Your task to perform on an android device: Clear all items from cart on amazon.com. Image 0: 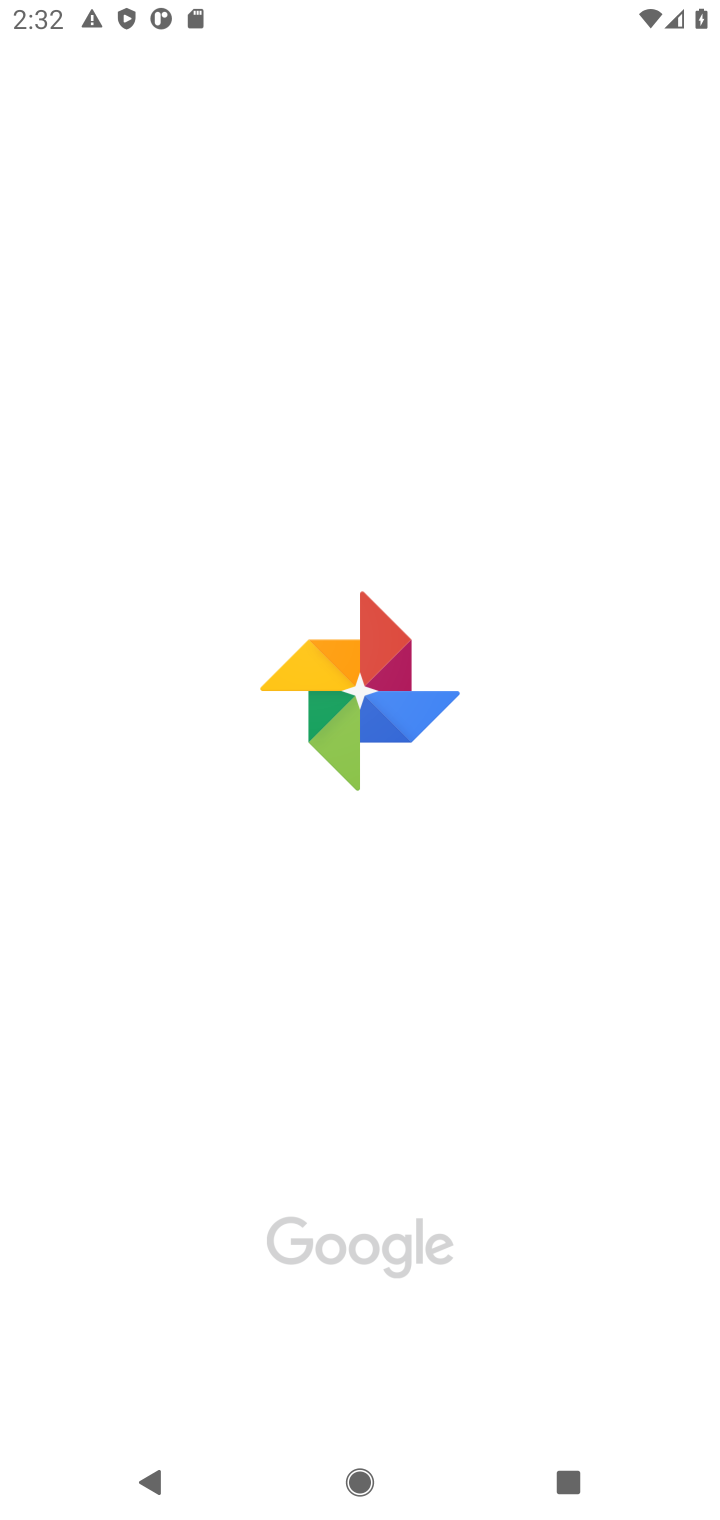
Step 0: press home button
Your task to perform on an android device: Clear all items from cart on amazon.com. Image 1: 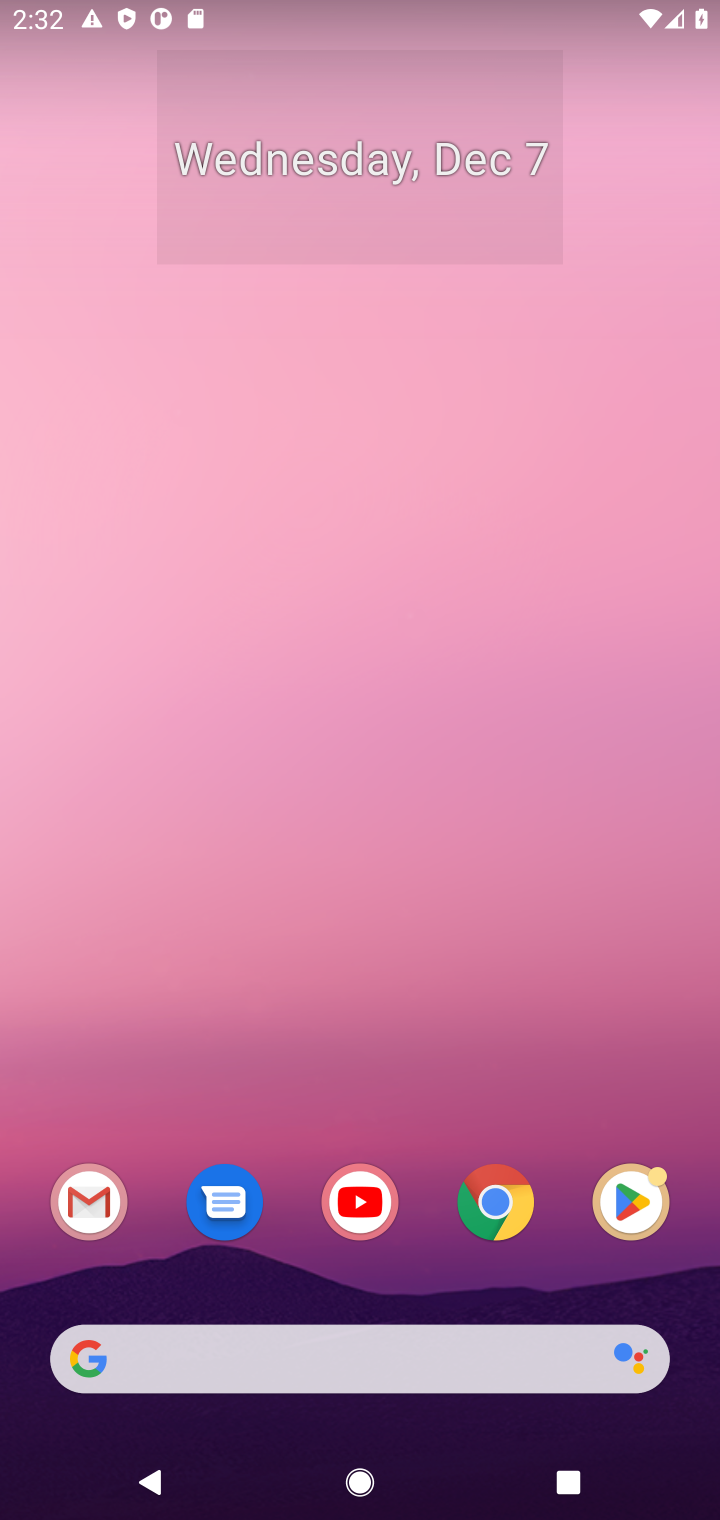
Step 1: click (497, 1194)
Your task to perform on an android device: Clear all items from cart on amazon.com. Image 2: 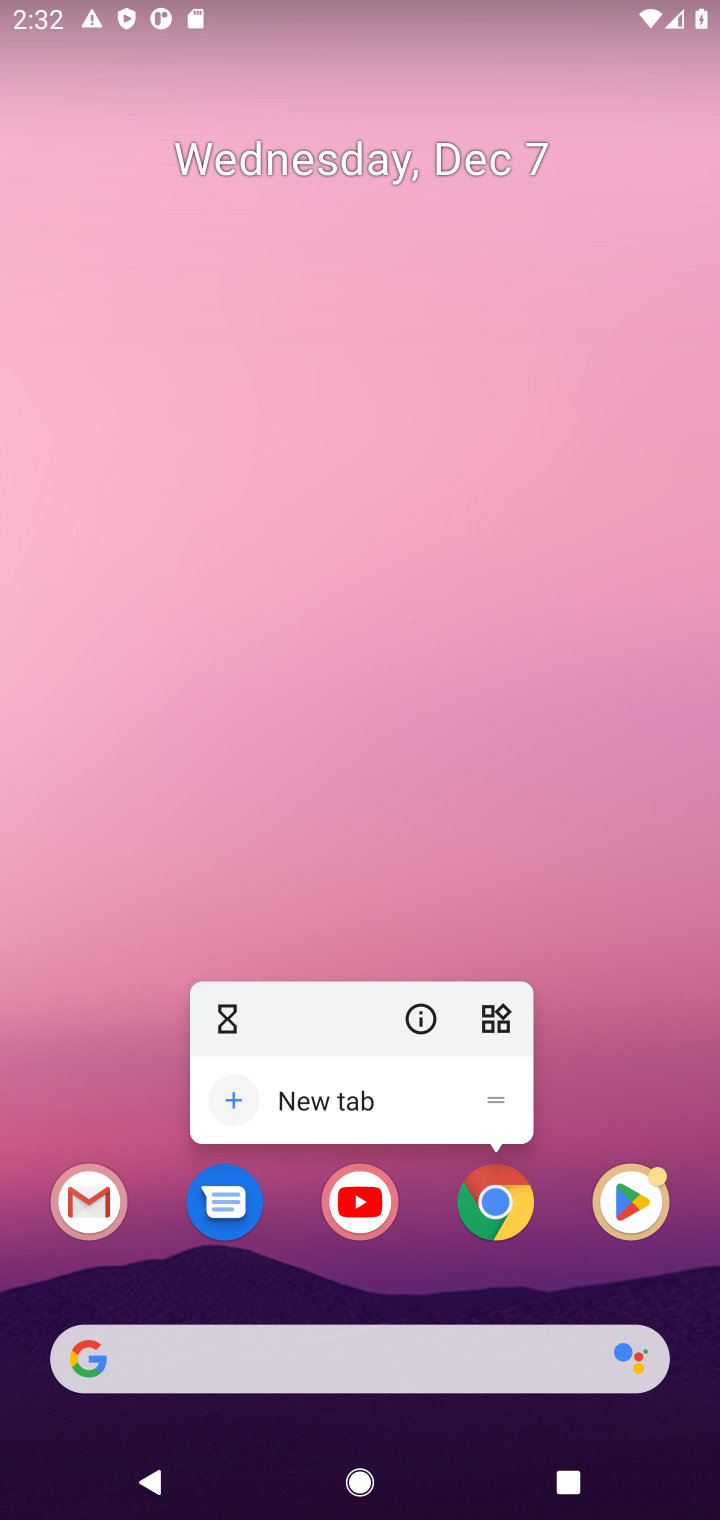
Step 2: click (491, 1195)
Your task to perform on an android device: Clear all items from cart on amazon.com. Image 3: 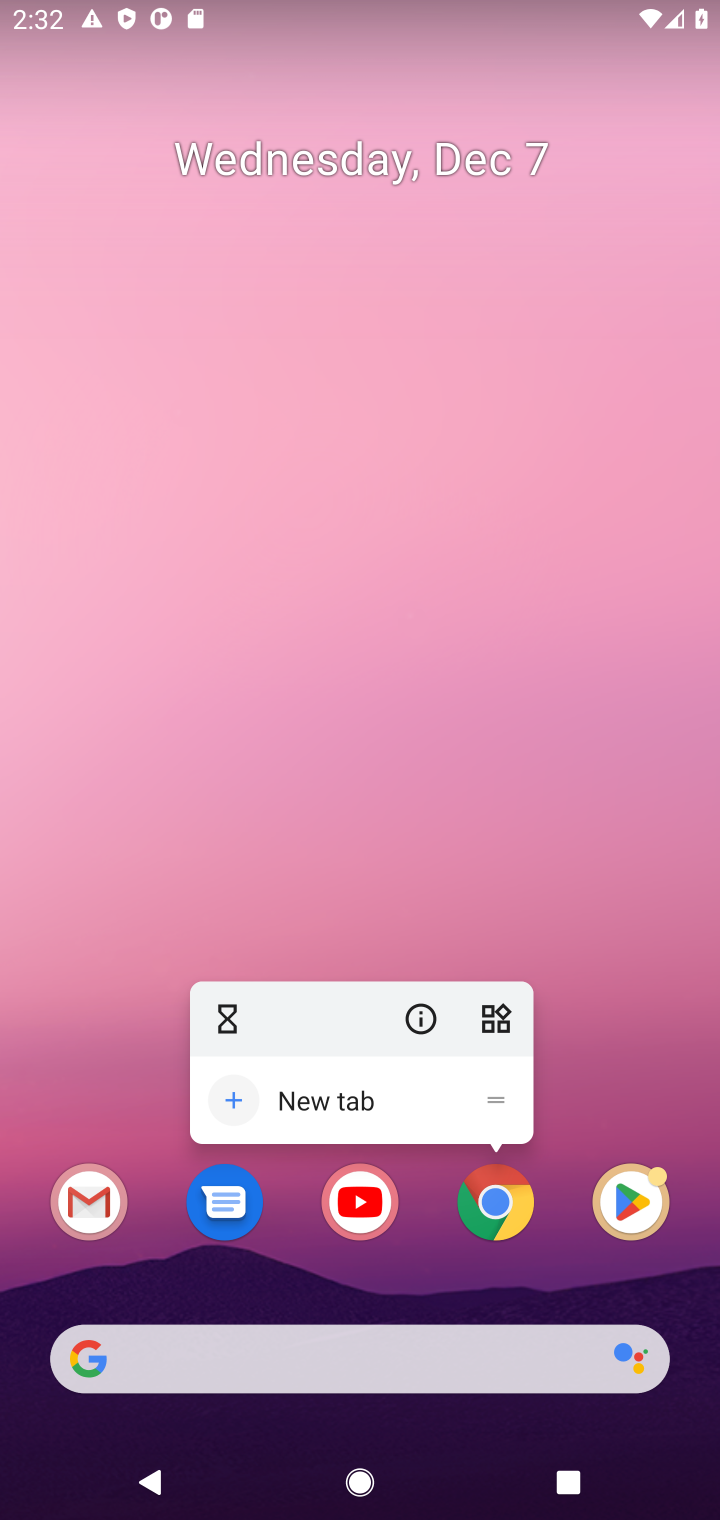
Step 3: click (491, 1195)
Your task to perform on an android device: Clear all items from cart on amazon.com. Image 4: 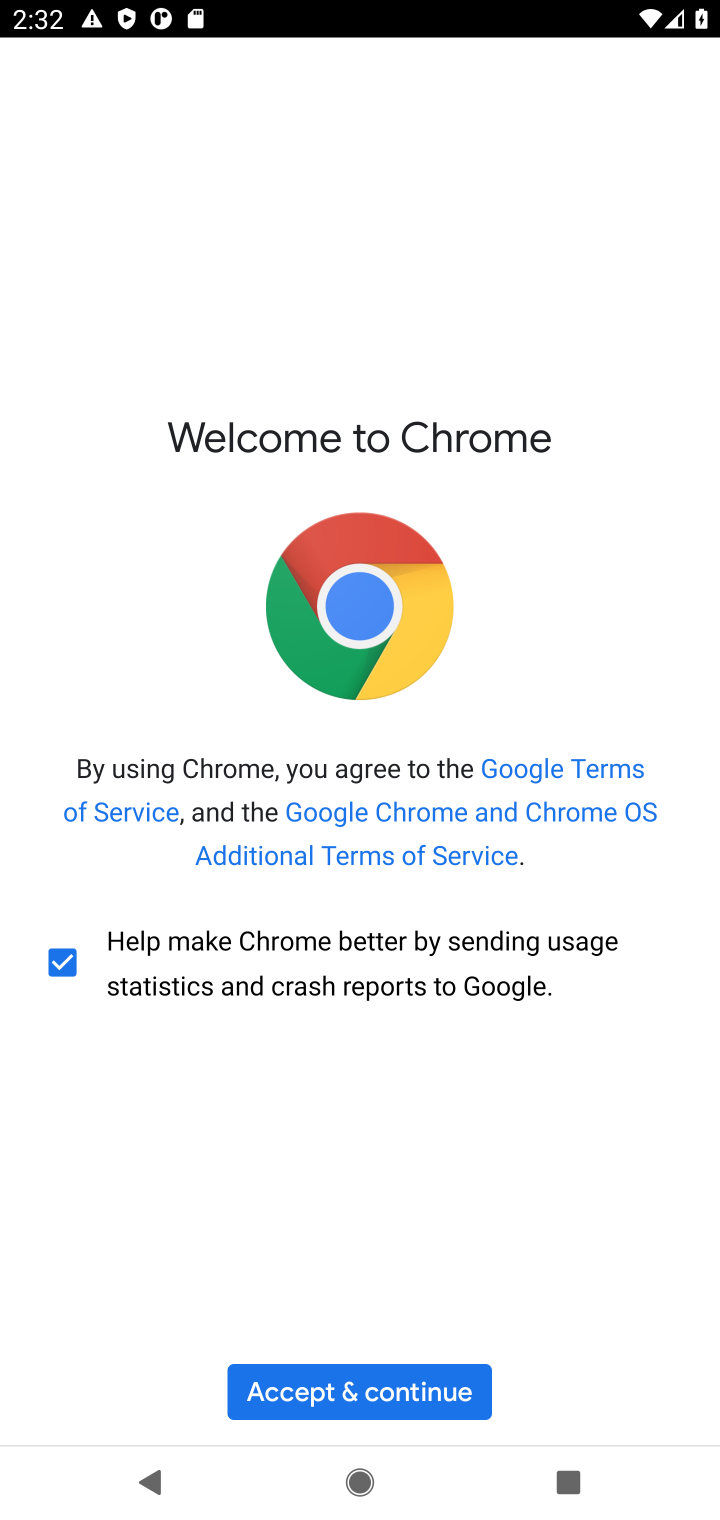
Step 4: click (491, 1195)
Your task to perform on an android device: Clear all items from cart on amazon.com. Image 5: 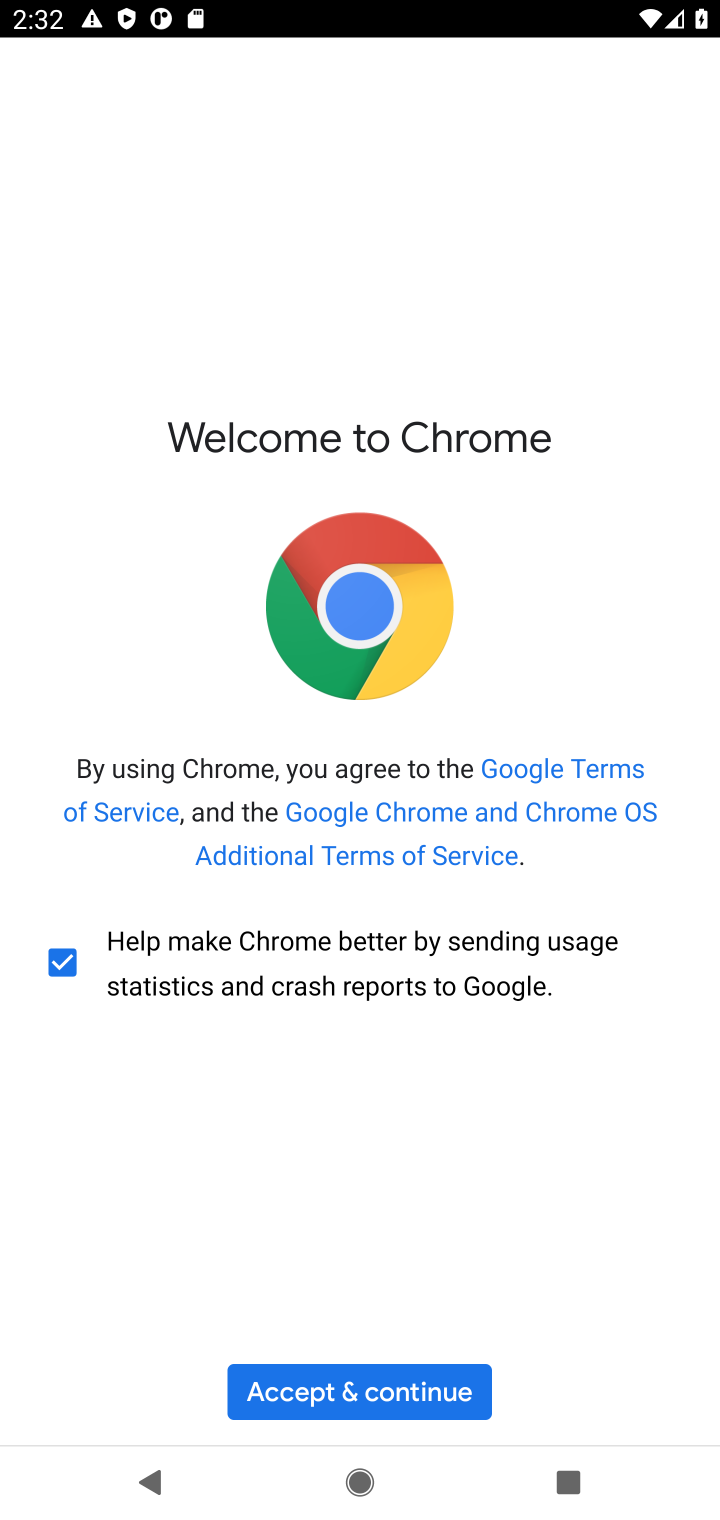
Step 5: click (296, 1390)
Your task to perform on an android device: Clear all items from cart on amazon.com. Image 6: 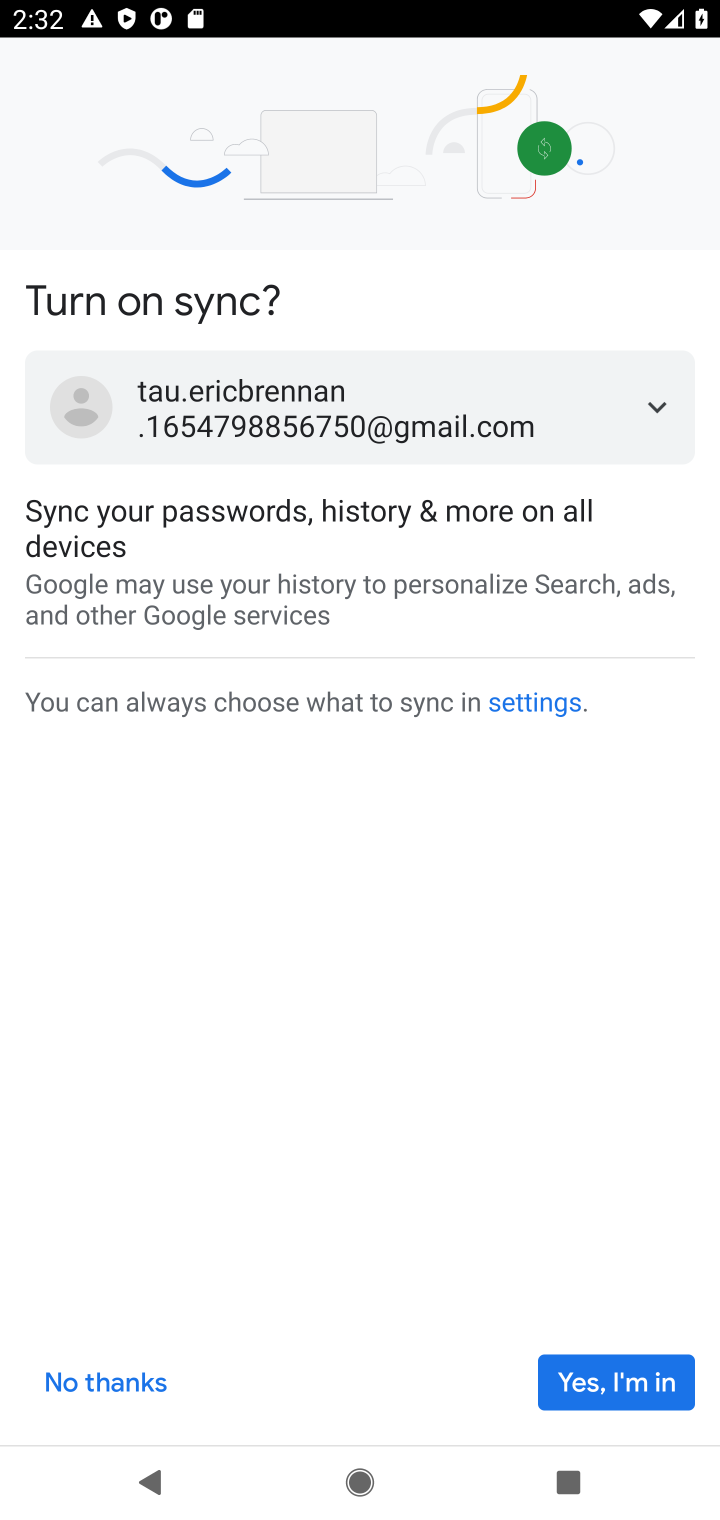
Step 6: click (622, 1376)
Your task to perform on an android device: Clear all items from cart on amazon.com. Image 7: 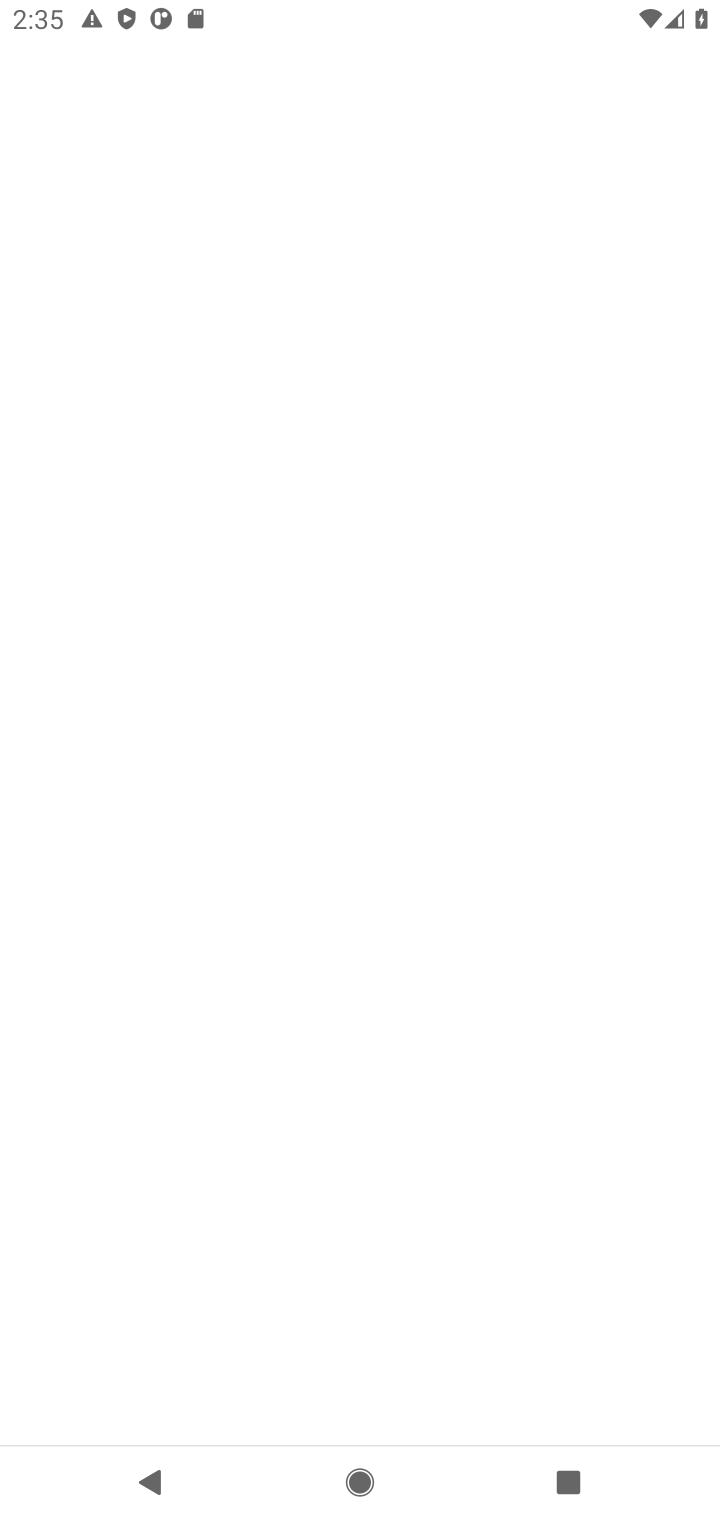
Step 7: task complete